Your task to perform on an android device: What's on my calendar today? Image 0: 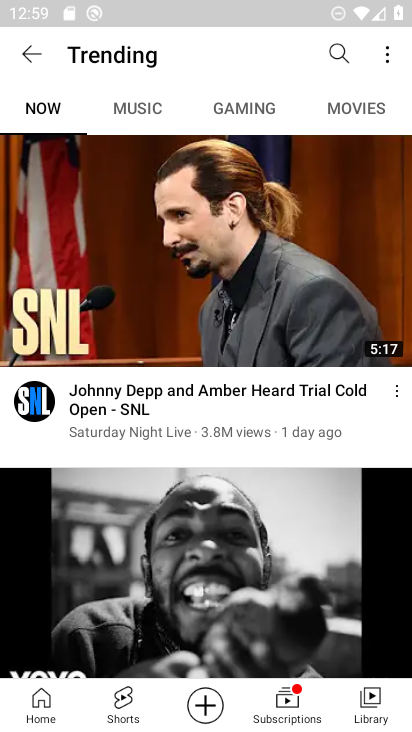
Step 0: press home button
Your task to perform on an android device: What's on my calendar today? Image 1: 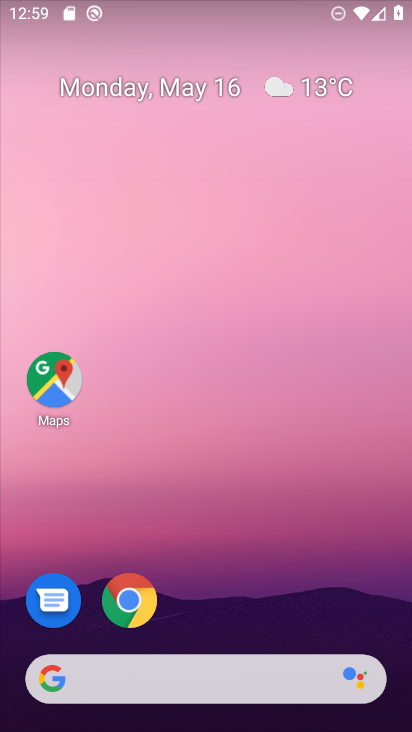
Step 1: drag from (221, 641) to (252, 74)
Your task to perform on an android device: What's on my calendar today? Image 2: 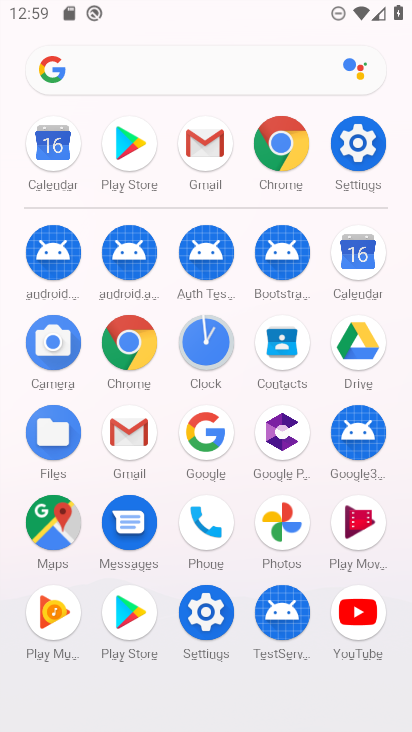
Step 2: click (356, 249)
Your task to perform on an android device: What's on my calendar today? Image 3: 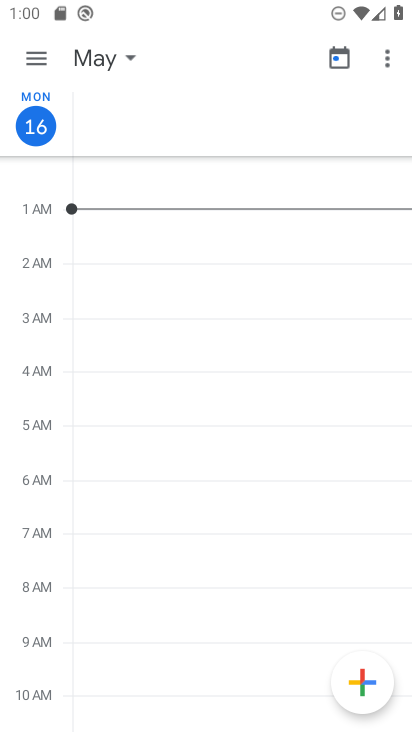
Step 3: task complete